Your task to perform on an android device: set an alarm Image 0: 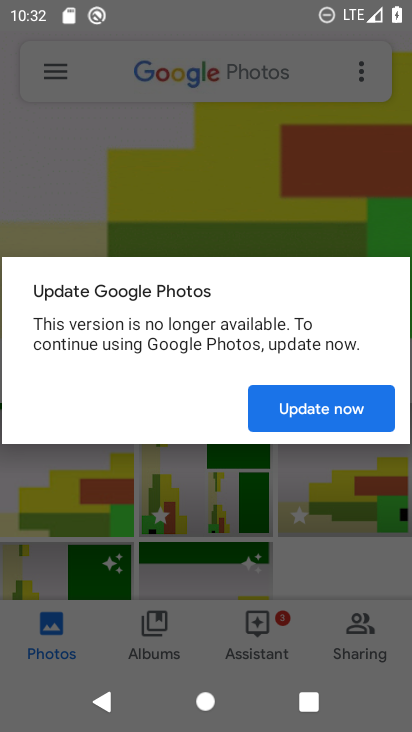
Step 0: press home button
Your task to perform on an android device: set an alarm Image 1: 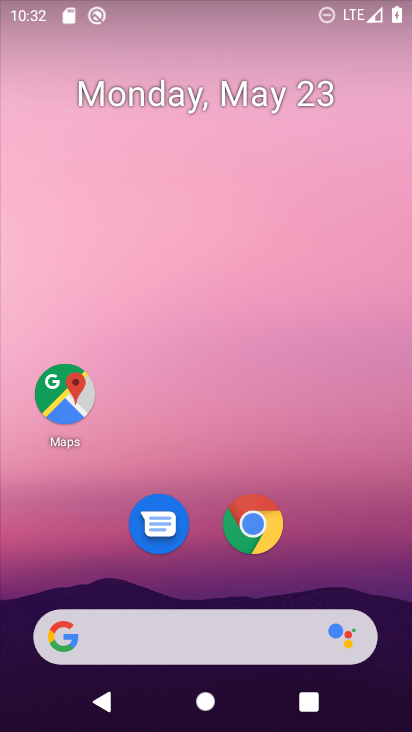
Step 1: drag from (190, 446) to (208, 70)
Your task to perform on an android device: set an alarm Image 2: 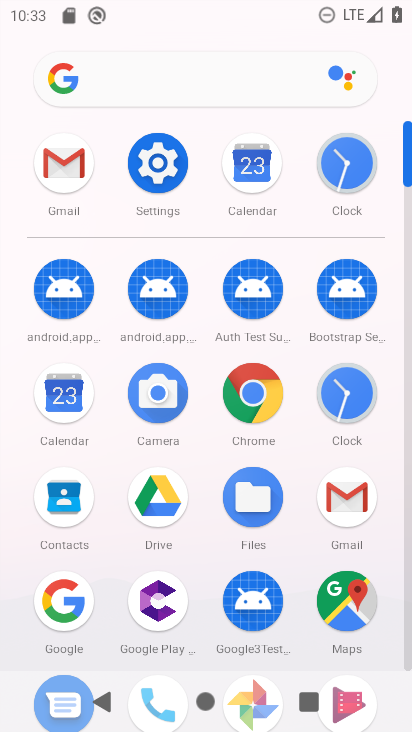
Step 2: click (344, 161)
Your task to perform on an android device: set an alarm Image 3: 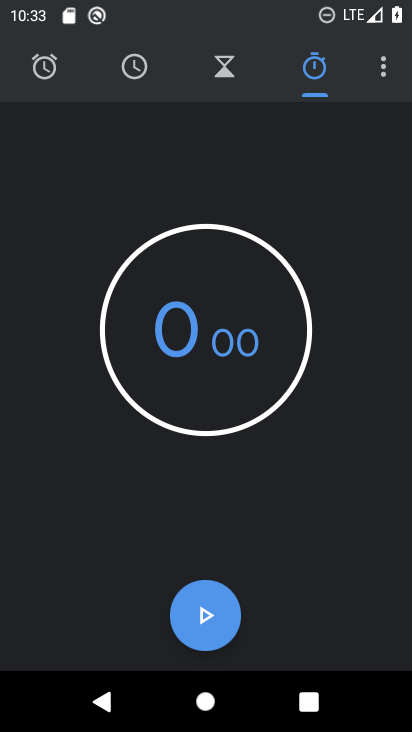
Step 3: click (39, 61)
Your task to perform on an android device: set an alarm Image 4: 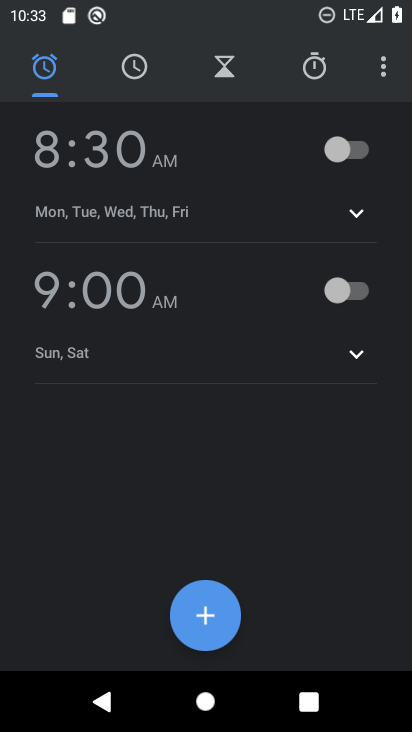
Step 4: click (208, 620)
Your task to perform on an android device: set an alarm Image 5: 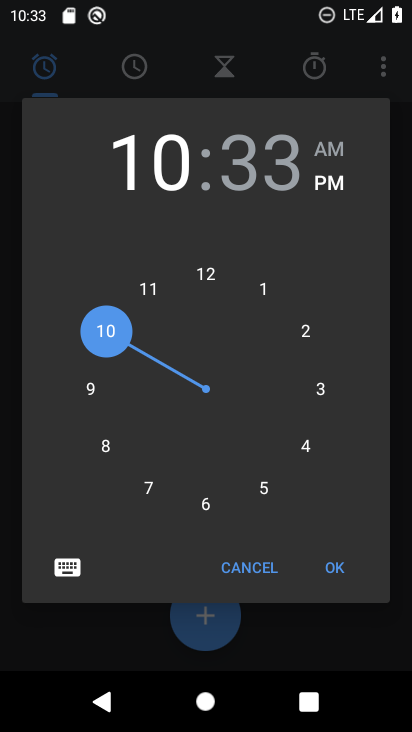
Step 5: click (266, 178)
Your task to perform on an android device: set an alarm Image 6: 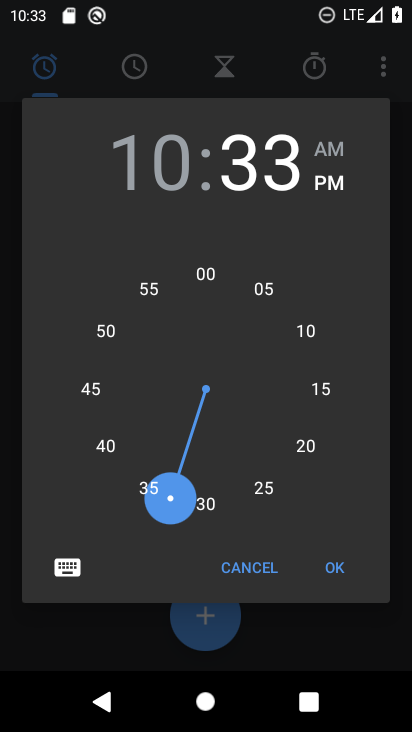
Step 6: click (204, 502)
Your task to perform on an android device: set an alarm Image 7: 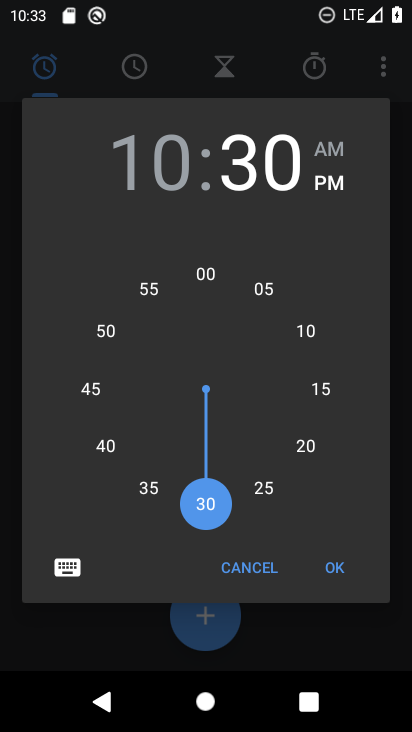
Step 7: click (335, 136)
Your task to perform on an android device: set an alarm Image 8: 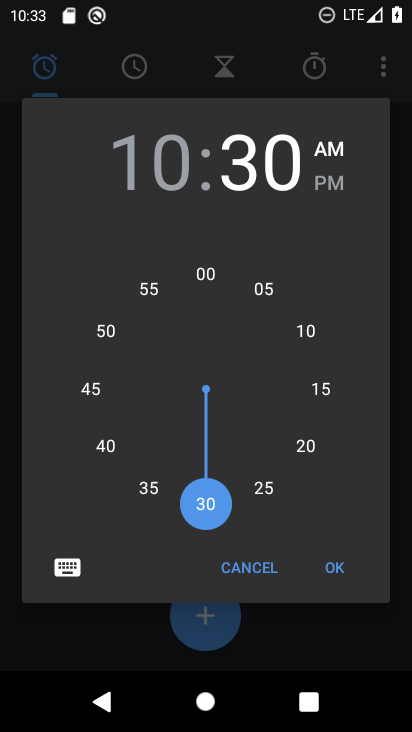
Step 8: click (337, 565)
Your task to perform on an android device: set an alarm Image 9: 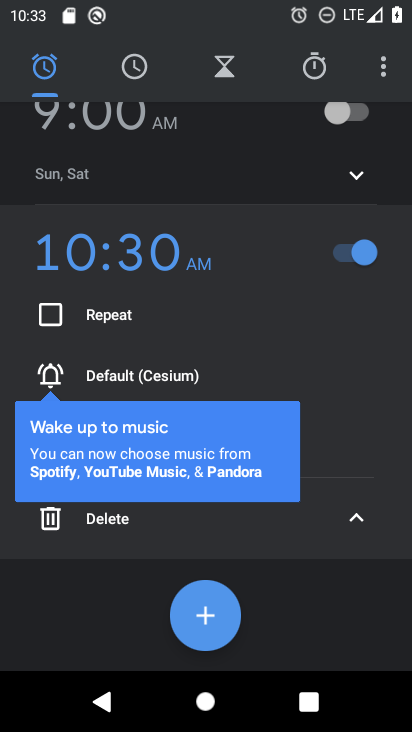
Step 9: task complete